Your task to perform on an android device: add a contact Image 0: 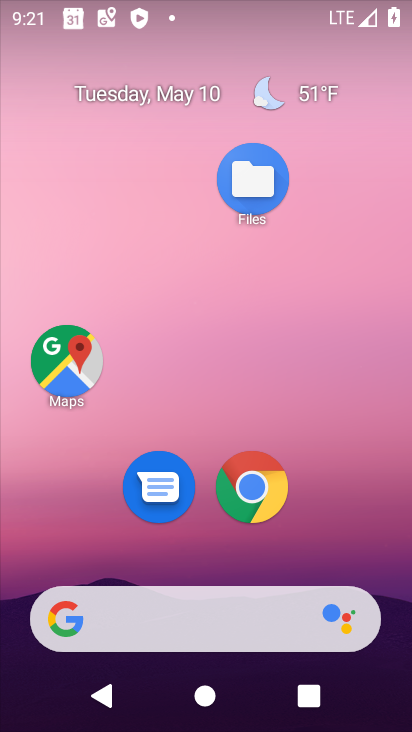
Step 0: drag from (211, 556) to (240, 80)
Your task to perform on an android device: add a contact Image 1: 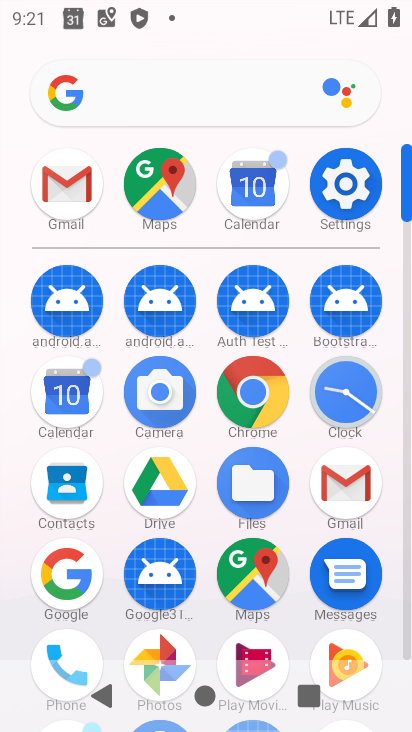
Step 1: drag from (204, 611) to (208, 325)
Your task to perform on an android device: add a contact Image 2: 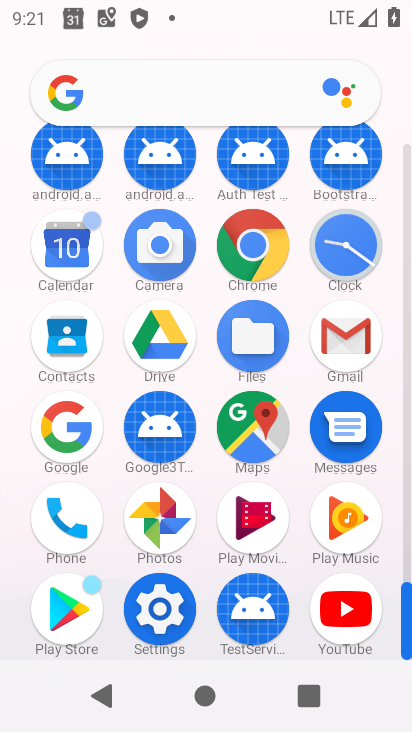
Step 2: click (60, 333)
Your task to perform on an android device: add a contact Image 3: 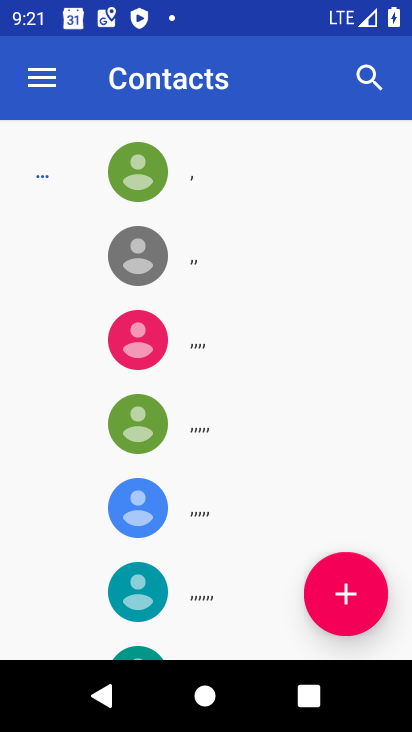
Step 3: click (360, 595)
Your task to perform on an android device: add a contact Image 4: 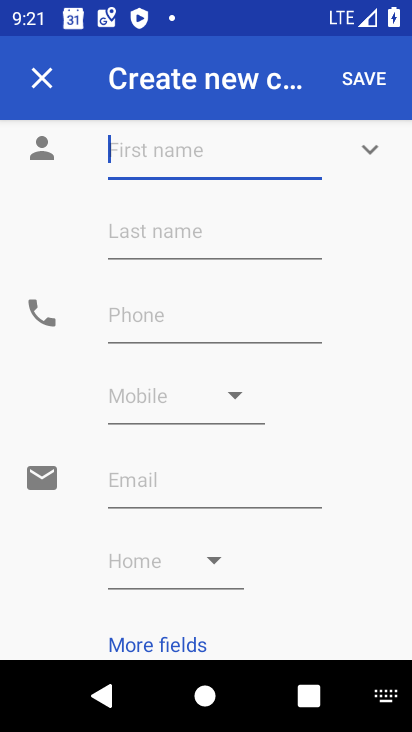
Step 4: type "hggh"
Your task to perform on an android device: add a contact Image 5: 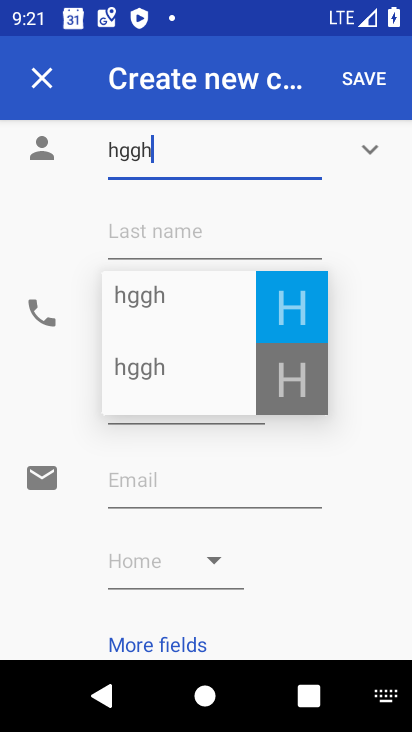
Step 5: click (340, 69)
Your task to perform on an android device: add a contact Image 6: 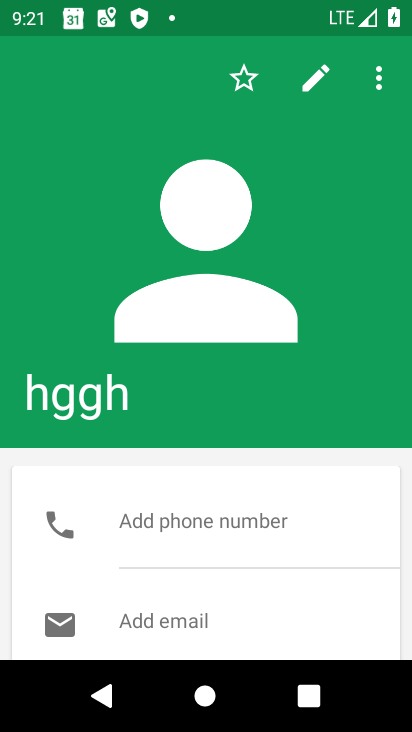
Step 6: task complete